Your task to perform on an android device: install app "Microsoft Authenticator" Image 0: 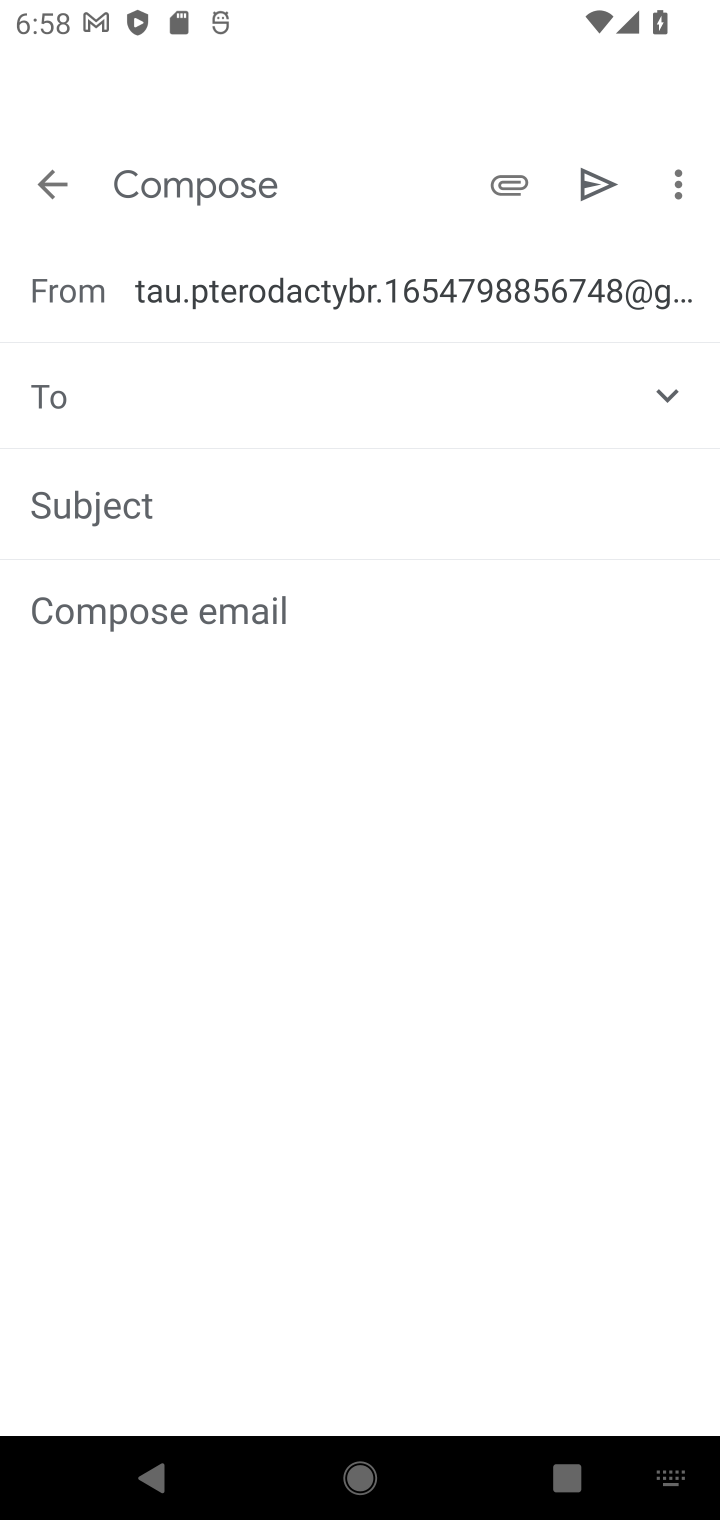
Step 0: press back button
Your task to perform on an android device: install app "Microsoft Authenticator" Image 1: 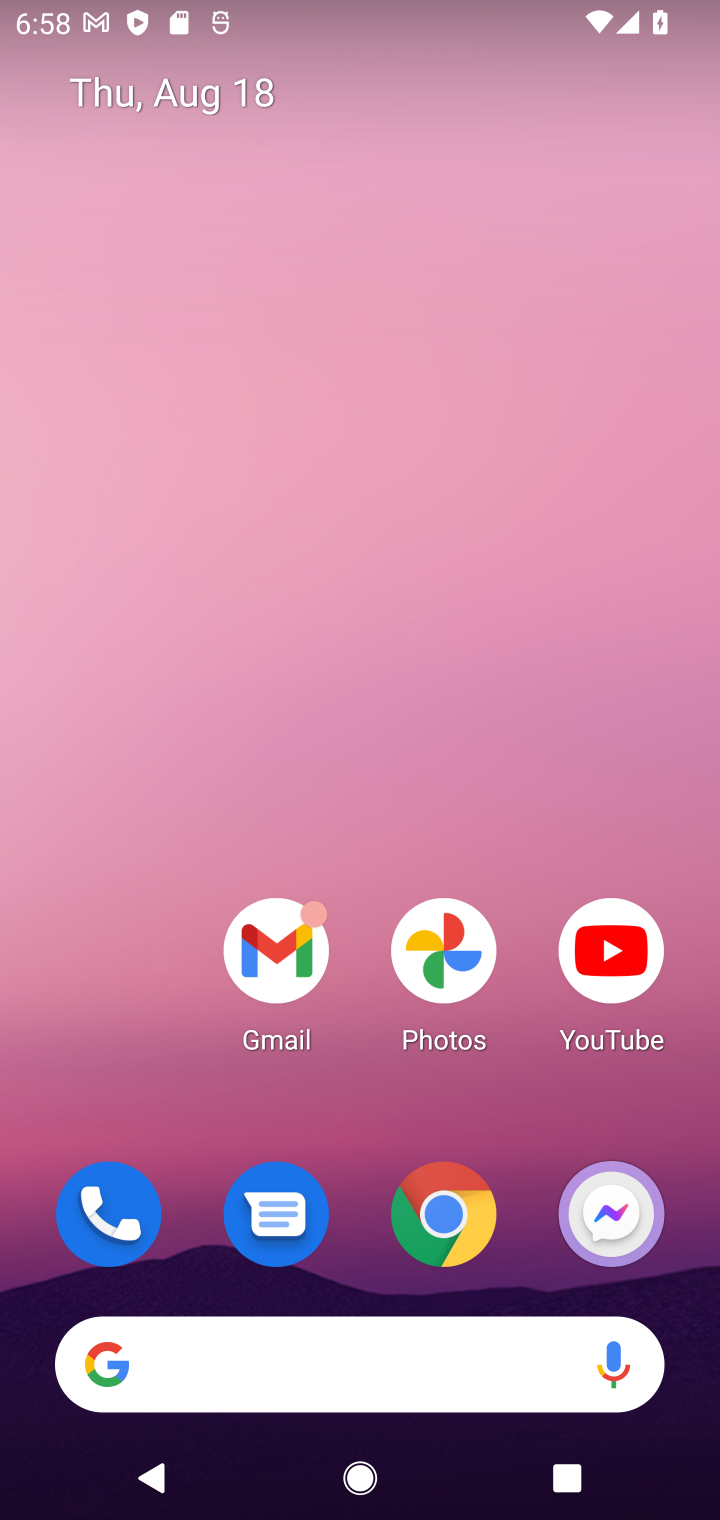
Step 1: drag from (219, 1060) to (240, 46)
Your task to perform on an android device: install app "Microsoft Authenticator" Image 2: 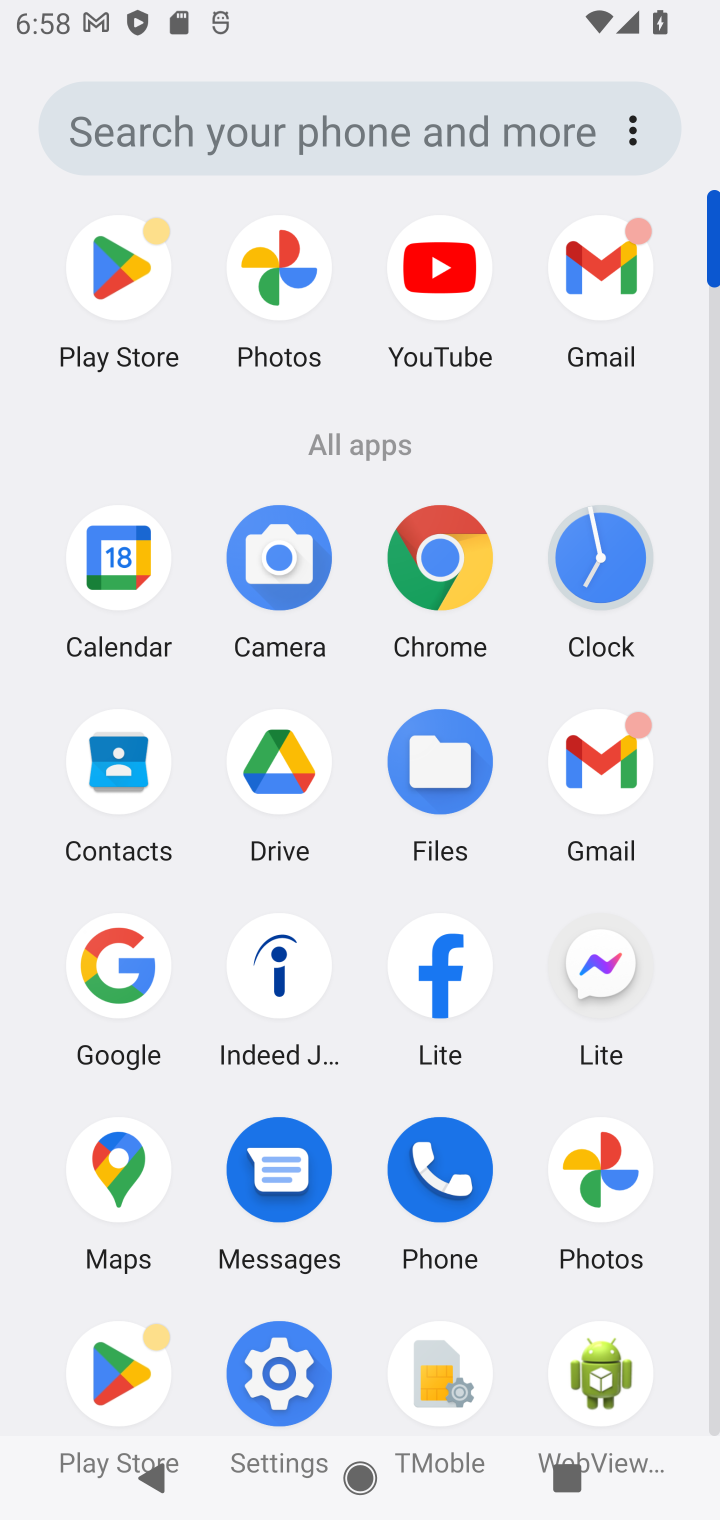
Step 2: click (103, 274)
Your task to perform on an android device: install app "Microsoft Authenticator" Image 3: 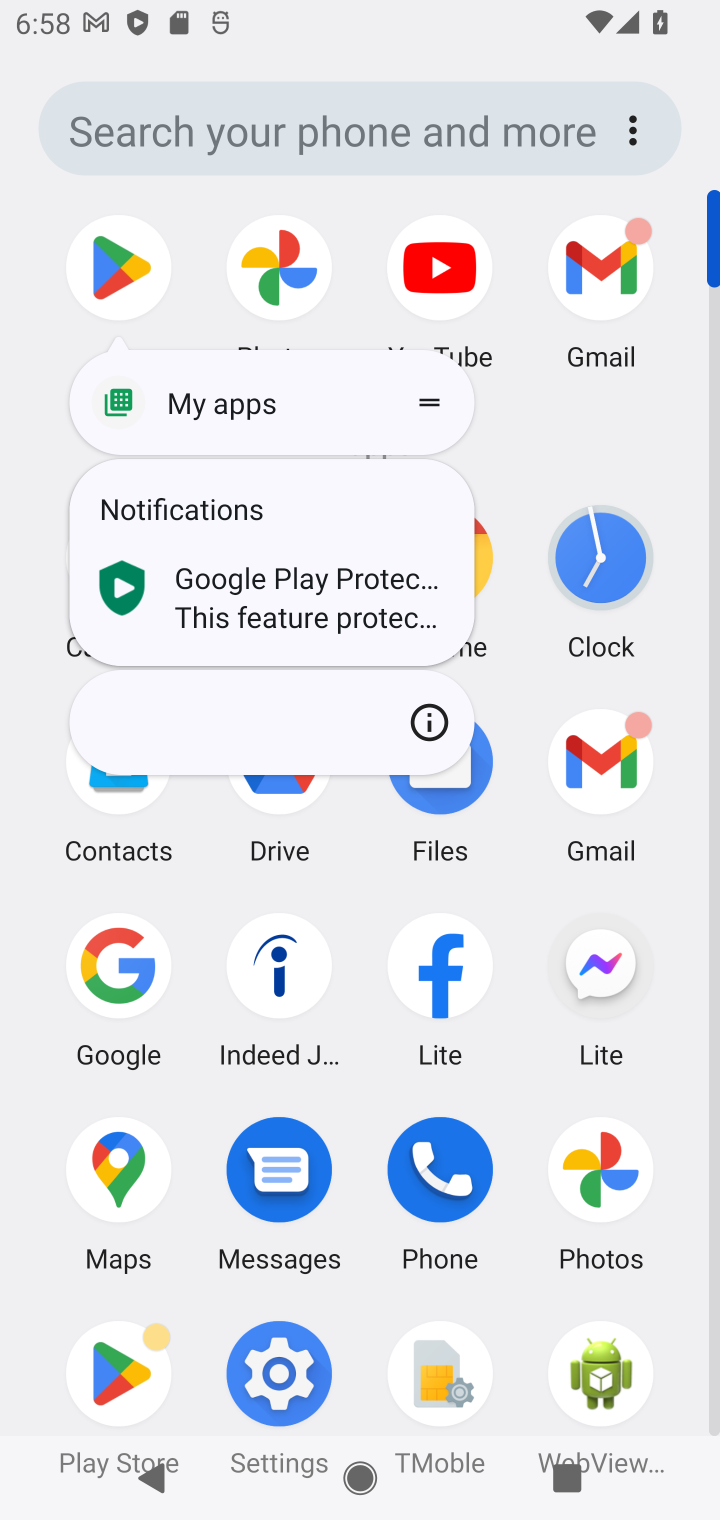
Step 3: click (124, 265)
Your task to perform on an android device: install app "Microsoft Authenticator" Image 4: 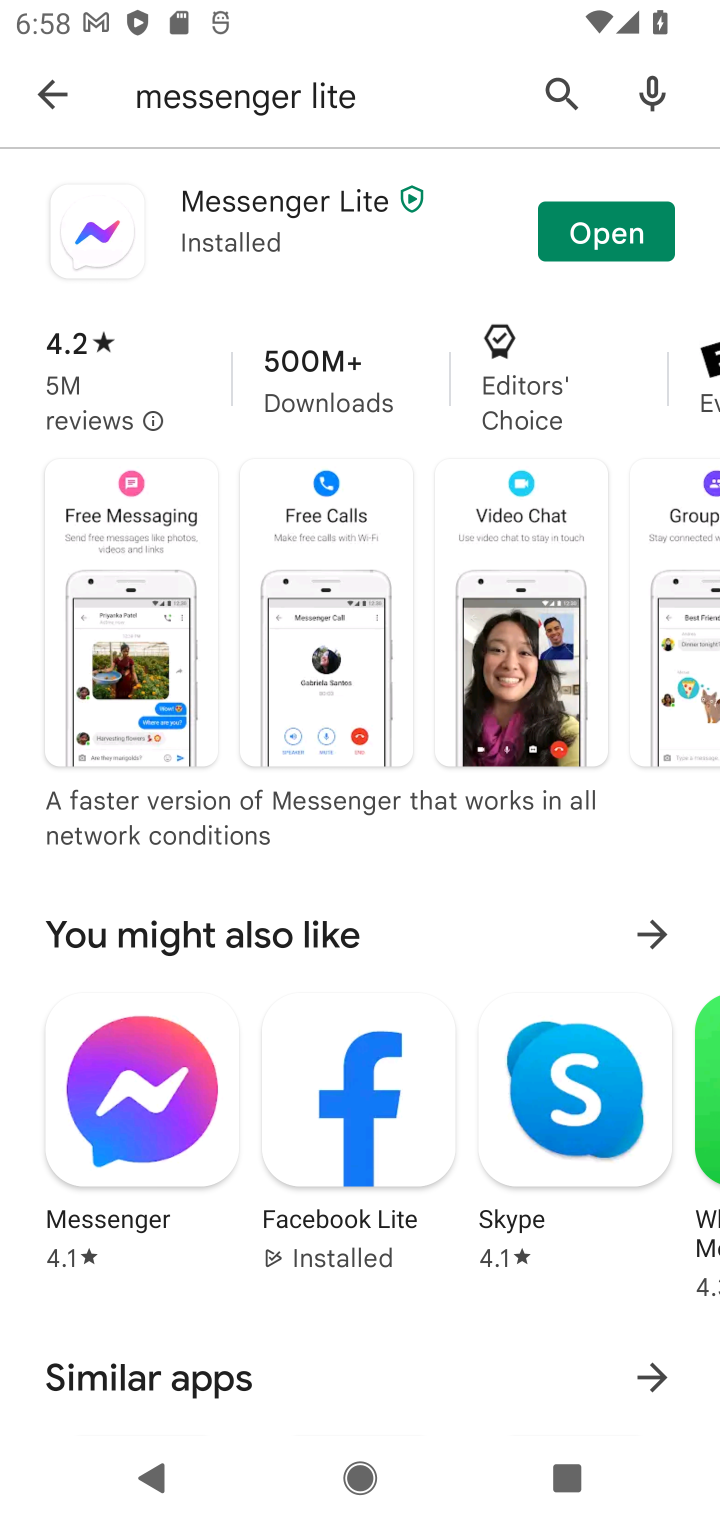
Step 4: click (550, 98)
Your task to perform on an android device: install app "Microsoft Authenticator" Image 5: 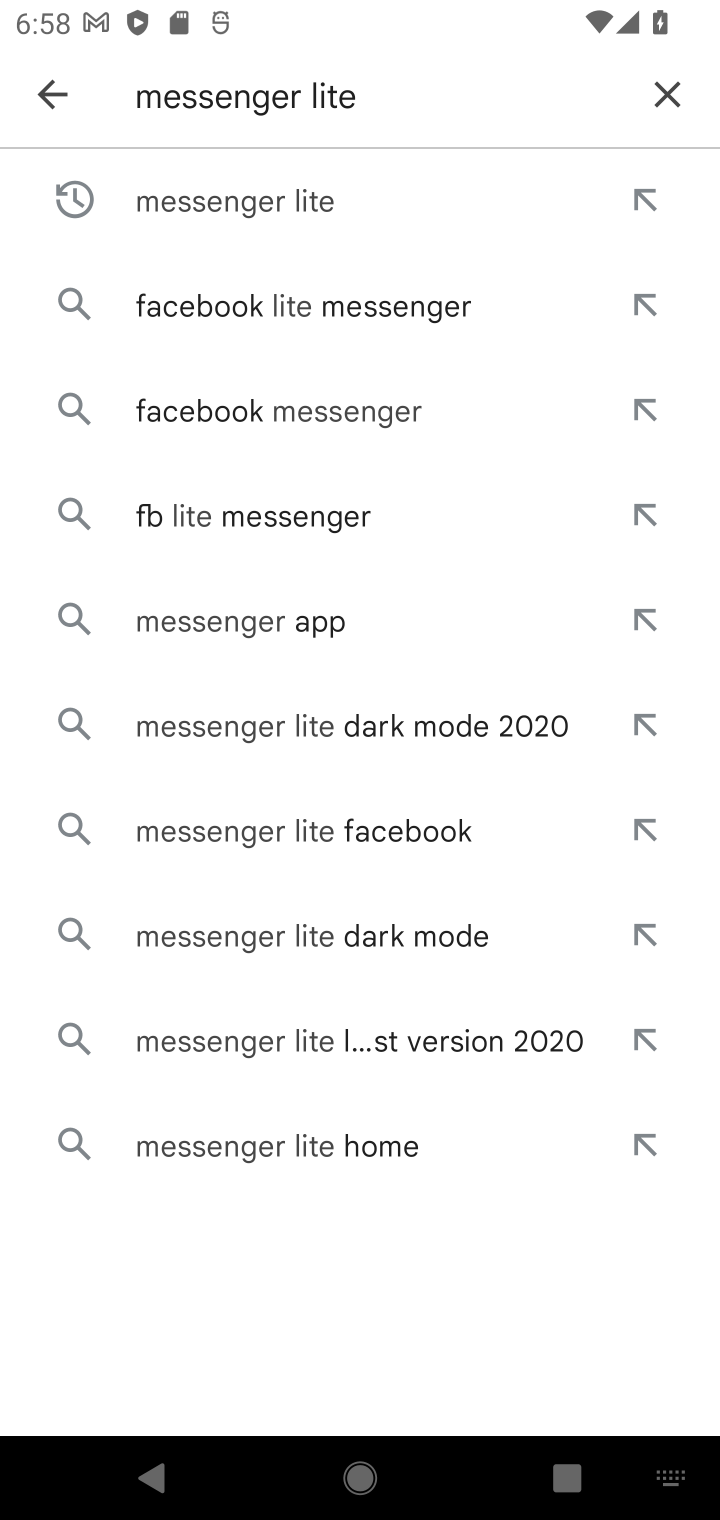
Step 5: click (656, 85)
Your task to perform on an android device: install app "Microsoft Authenticator" Image 6: 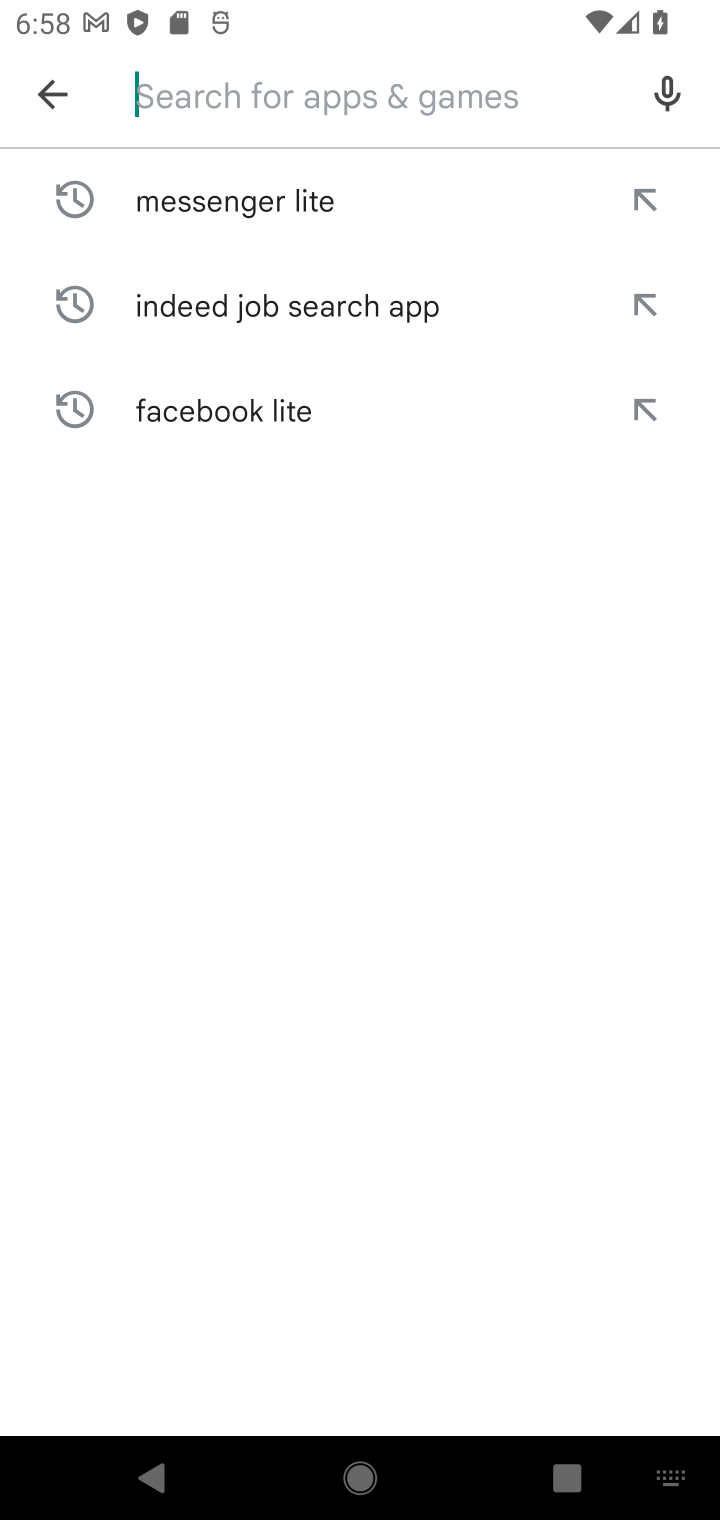
Step 6: type "microsoft authenticator"
Your task to perform on an android device: install app "Microsoft Authenticator" Image 7: 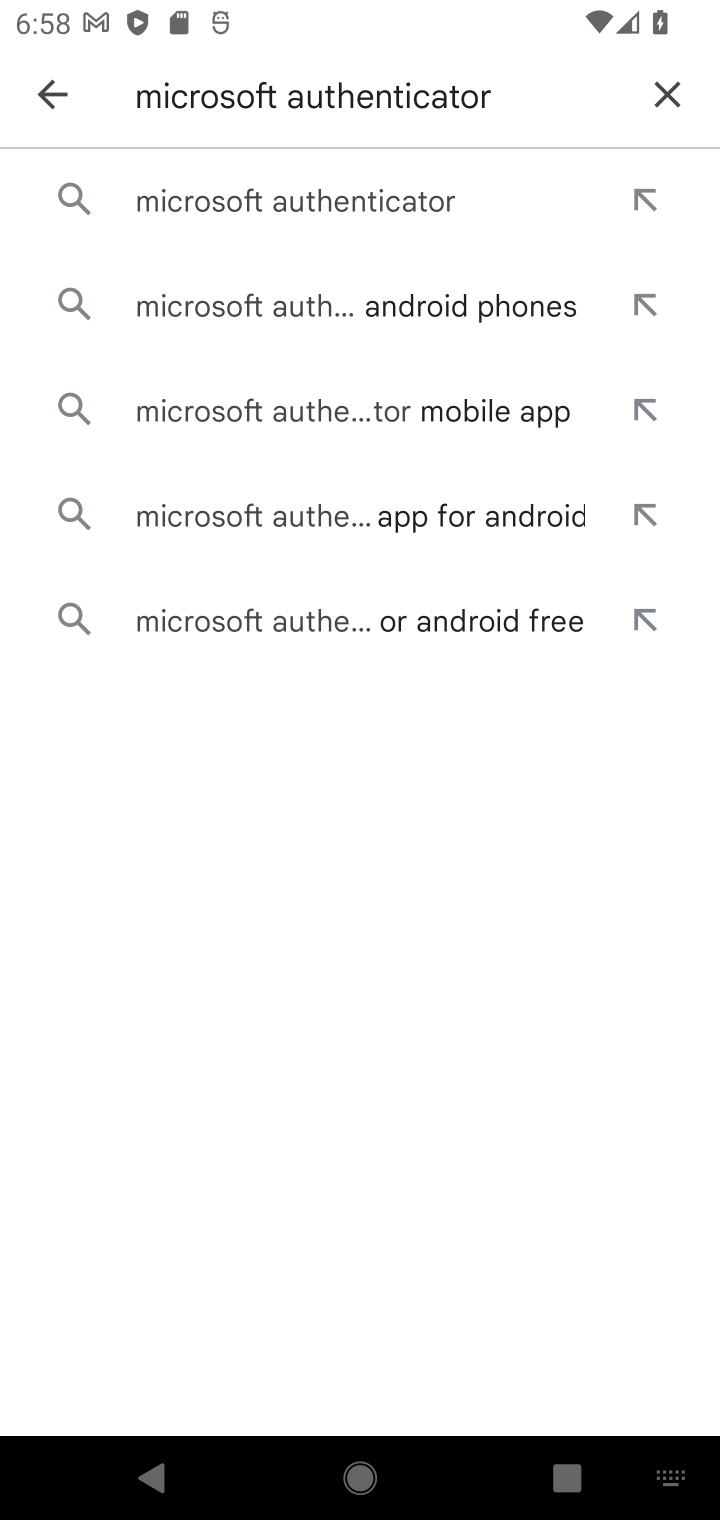
Step 7: click (290, 193)
Your task to perform on an android device: install app "Microsoft Authenticator" Image 8: 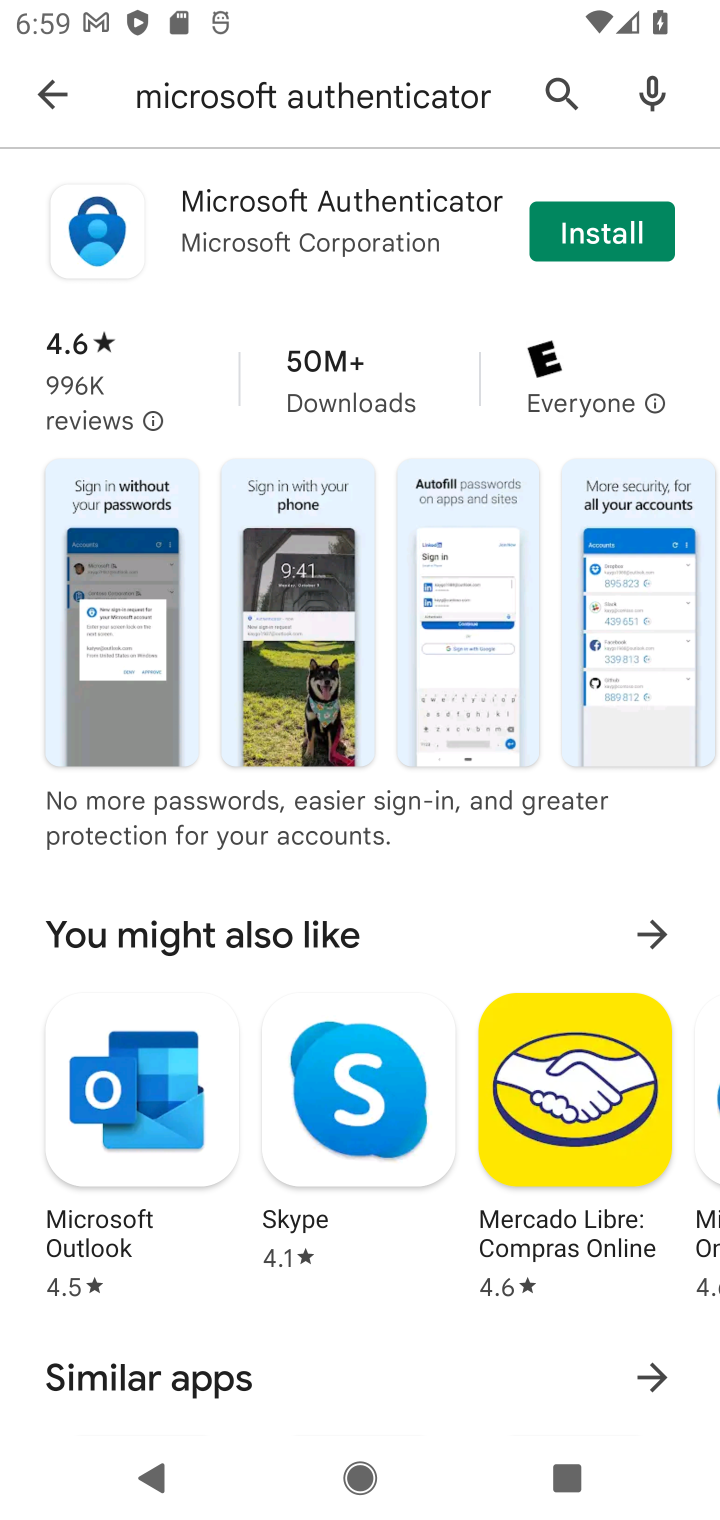
Step 8: click (631, 239)
Your task to perform on an android device: install app "Microsoft Authenticator" Image 9: 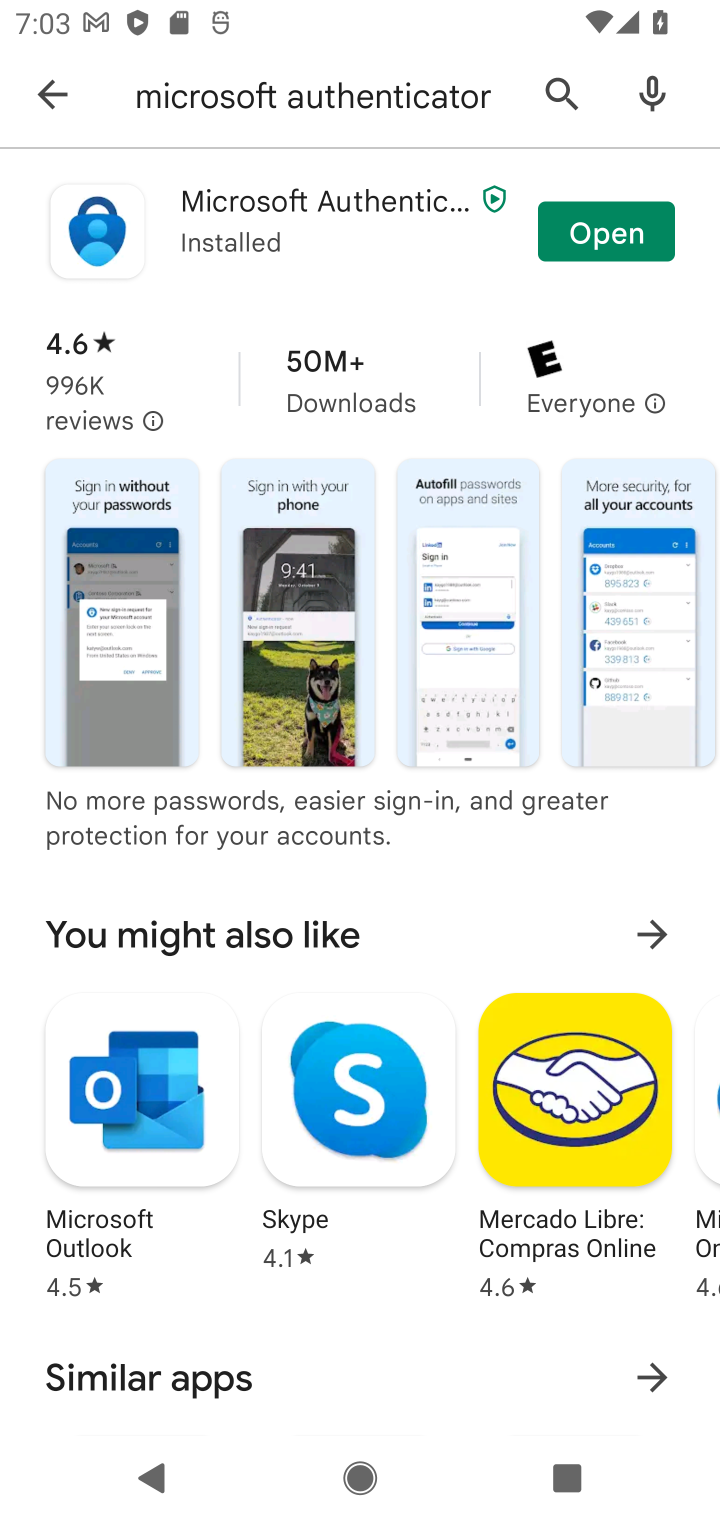
Step 9: task complete